Your task to perform on an android device: turn off picture-in-picture Image 0: 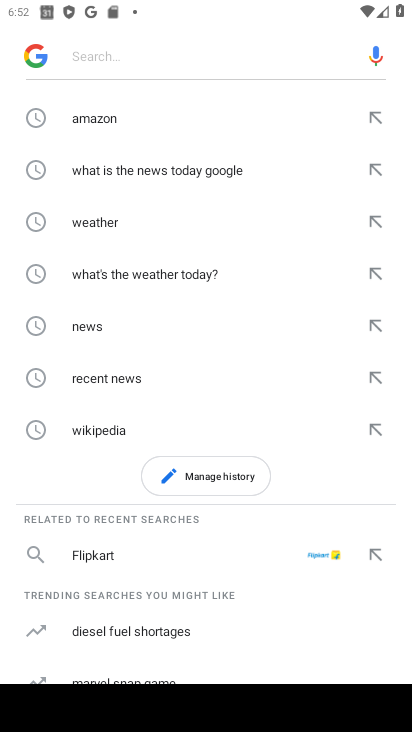
Step 0: press home button
Your task to perform on an android device: turn off picture-in-picture Image 1: 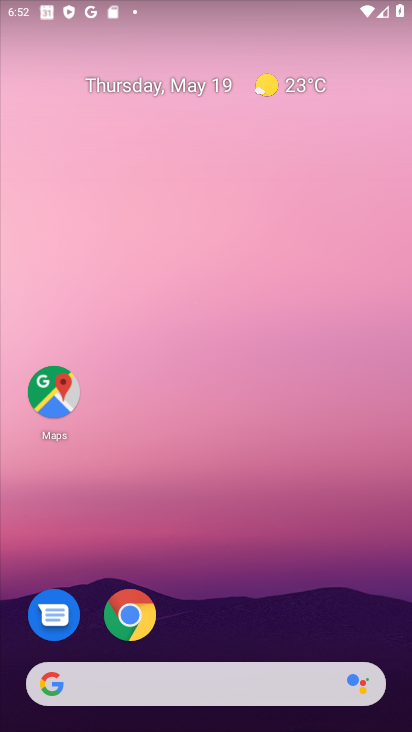
Step 1: drag from (358, 609) to (219, 42)
Your task to perform on an android device: turn off picture-in-picture Image 2: 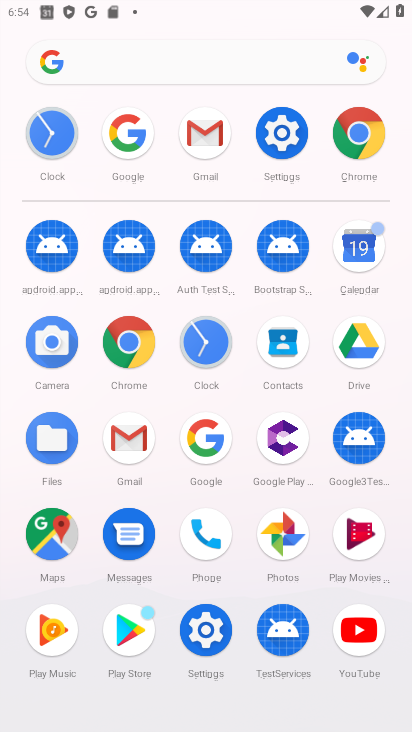
Step 2: click (359, 112)
Your task to perform on an android device: turn off picture-in-picture Image 3: 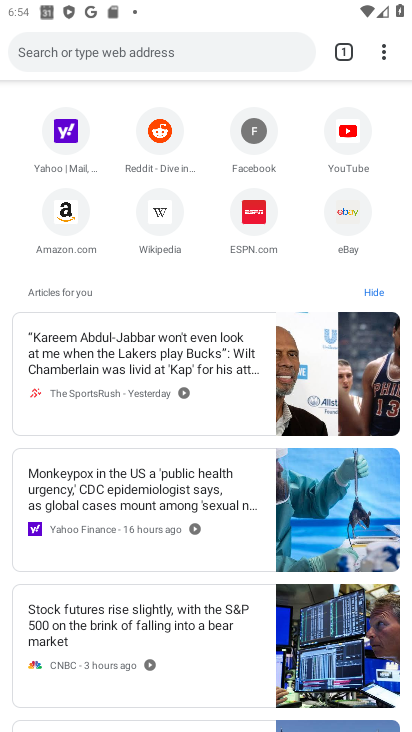
Step 3: task complete